Your task to perform on an android device: Open notification settings Image 0: 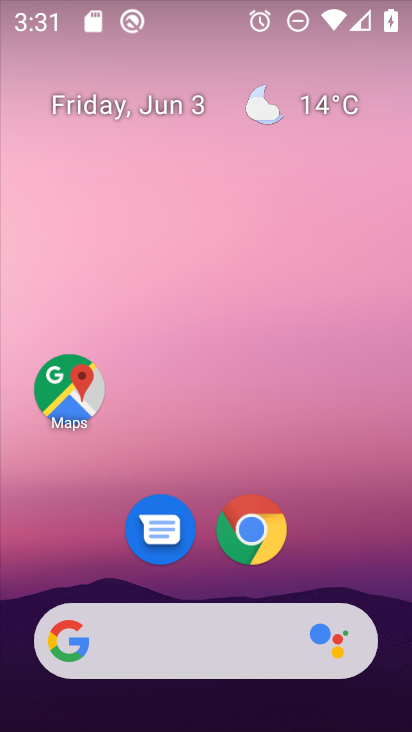
Step 0: drag from (362, 555) to (360, 194)
Your task to perform on an android device: Open notification settings Image 1: 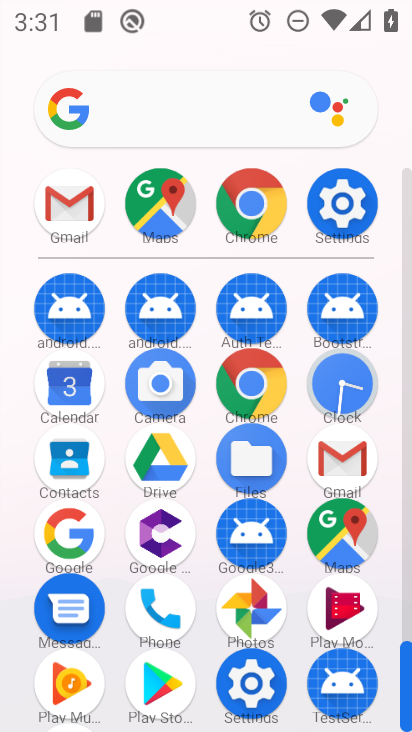
Step 1: click (355, 223)
Your task to perform on an android device: Open notification settings Image 2: 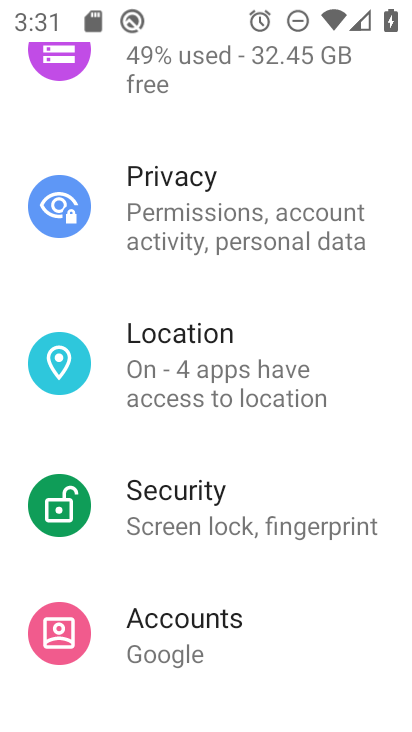
Step 2: drag from (352, 326) to (361, 479)
Your task to perform on an android device: Open notification settings Image 3: 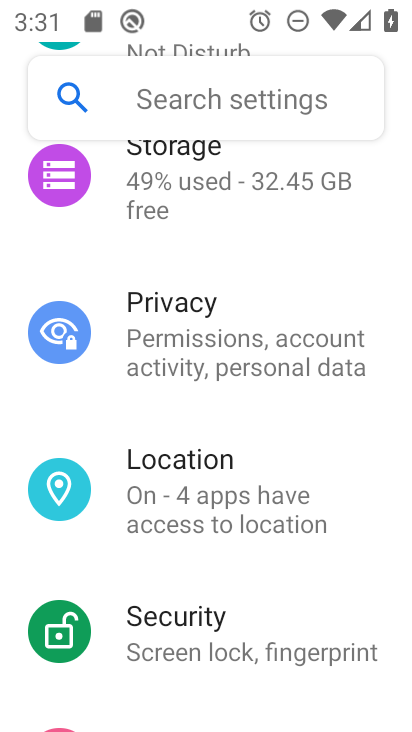
Step 3: drag from (335, 274) to (338, 406)
Your task to perform on an android device: Open notification settings Image 4: 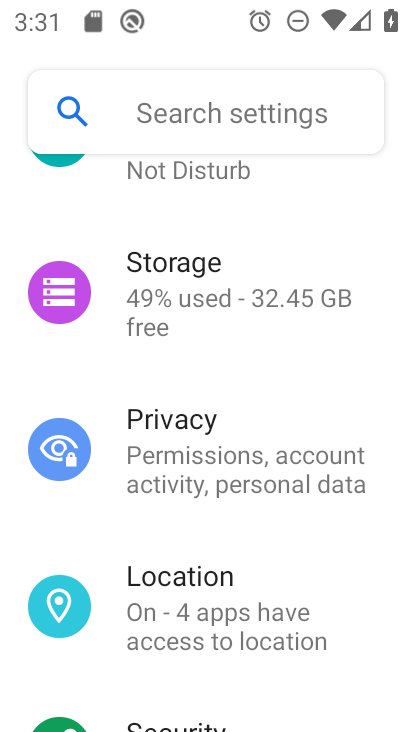
Step 4: drag from (354, 228) to (380, 379)
Your task to perform on an android device: Open notification settings Image 5: 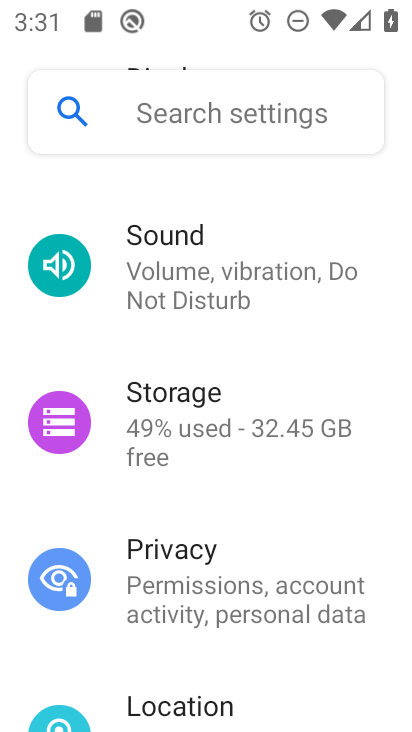
Step 5: drag from (373, 223) to (380, 364)
Your task to perform on an android device: Open notification settings Image 6: 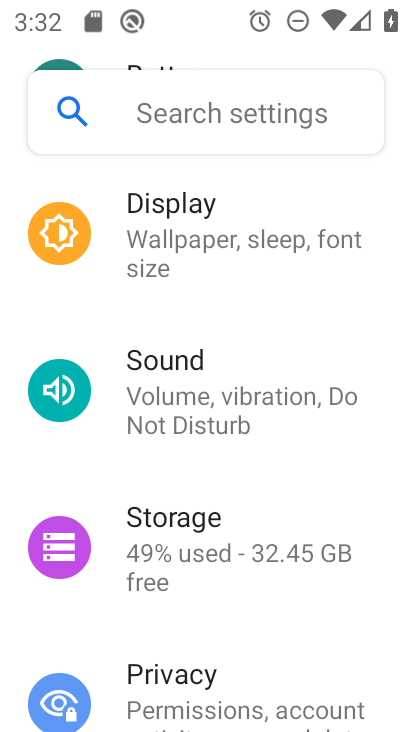
Step 6: drag from (371, 217) to (369, 347)
Your task to perform on an android device: Open notification settings Image 7: 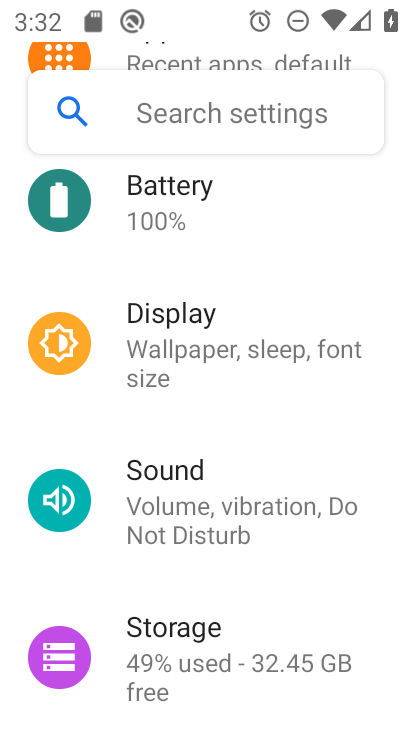
Step 7: drag from (351, 223) to (378, 377)
Your task to perform on an android device: Open notification settings Image 8: 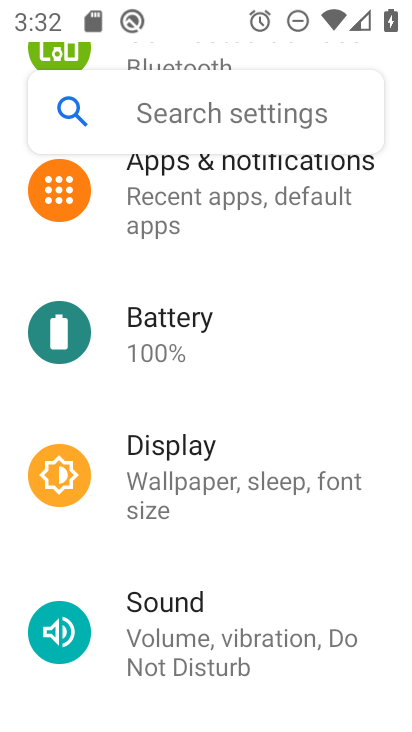
Step 8: drag from (365, 253) to (365, 379)
Your task to perform on an android device: Open notification settings Image 9: 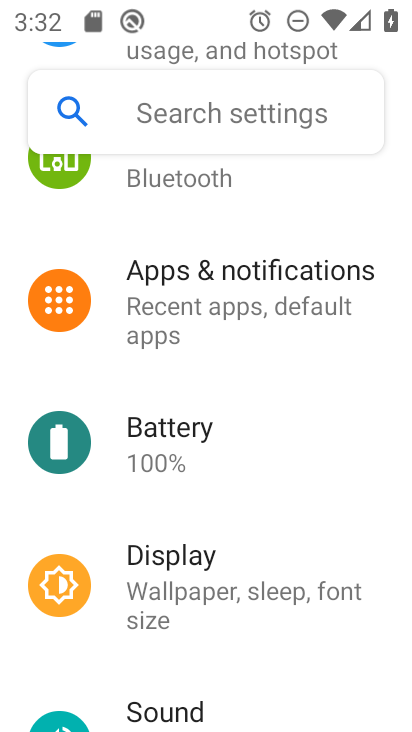
Step 9: drag from (362, 233) to (369, 392)
Your task to perform on an android device: Open notification settings Image 10: 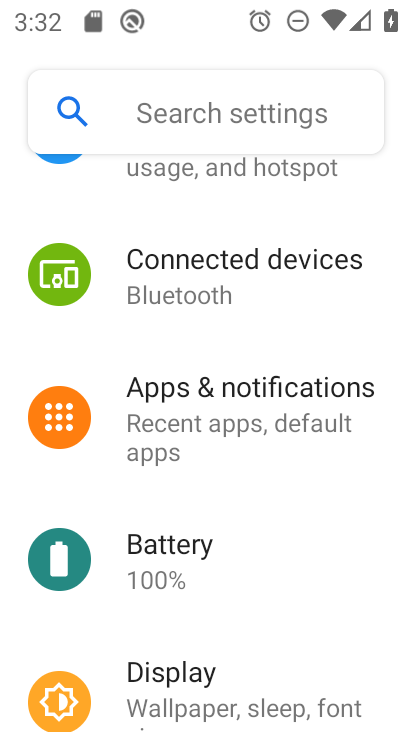
Step 10: click (311, 416)
Your task to perform on an android device: Open notification settings Image 11: 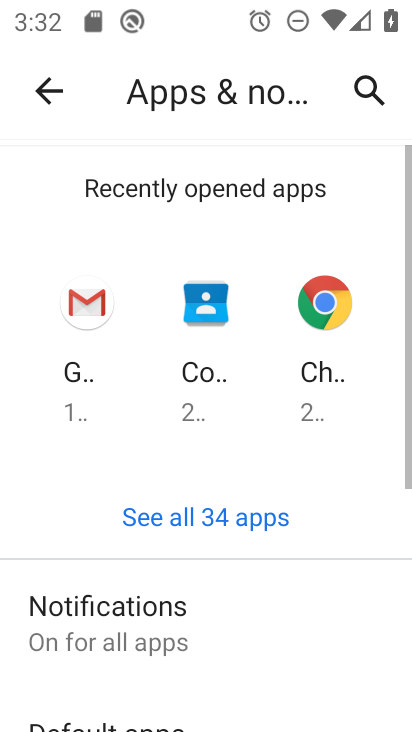
Step 11: drag from (289, 547) to (306, 347)
Your task to perform on an android device: Open notification settings Image 12: 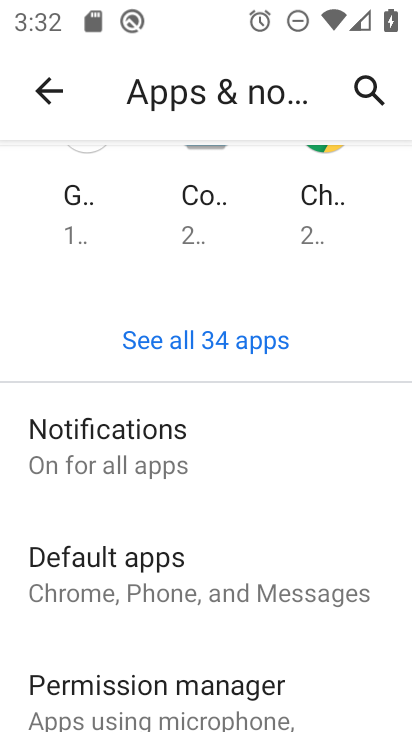
Step 12: click (168, 465)
Your task to perform on an android device: Open notification settings Image 13: 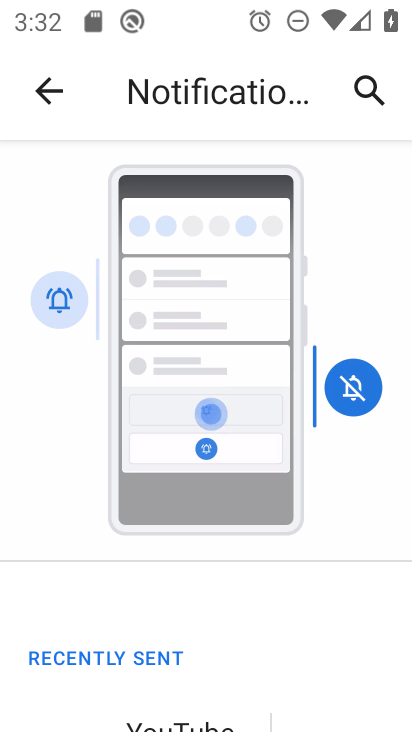
Step 13: task complete